Your task to perform on an android device: Open eBay Image 0: 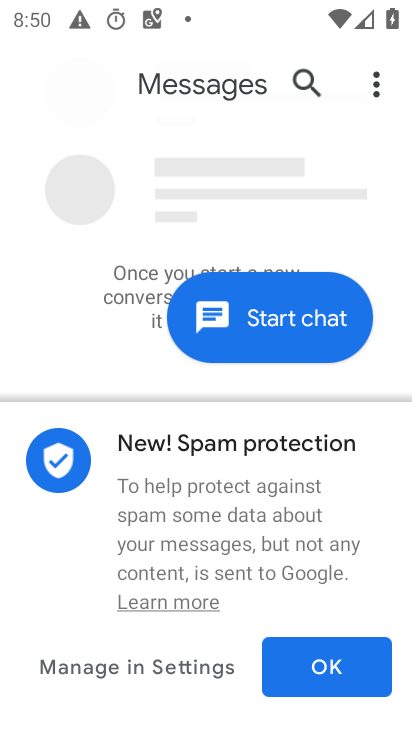
Step 0: press home button
Your task to perform on an android device: Open eBay Image 1: 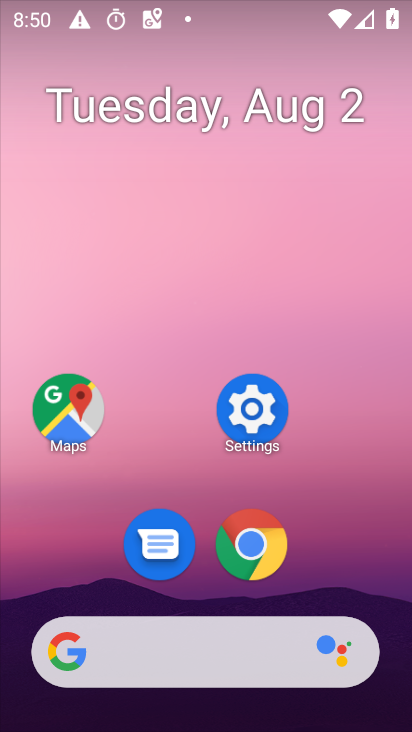
Step 1: click (249, 551)
Your task to perform on an android device: Open eBay Image 2: 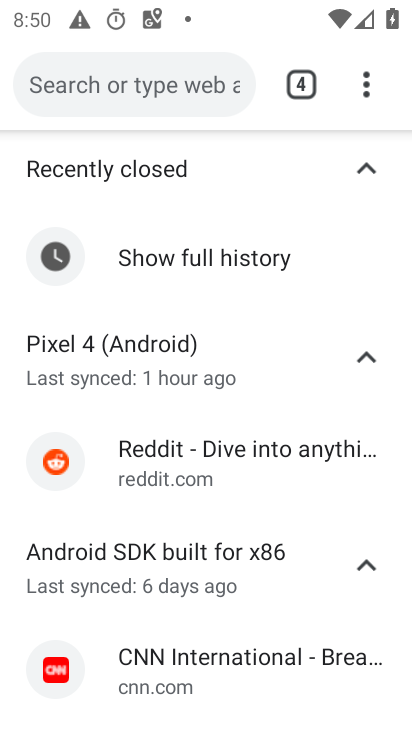
Step 2: drag from (365, 85) to (129, 163)
Your task to perform on an android device: Open eBay Image 3: 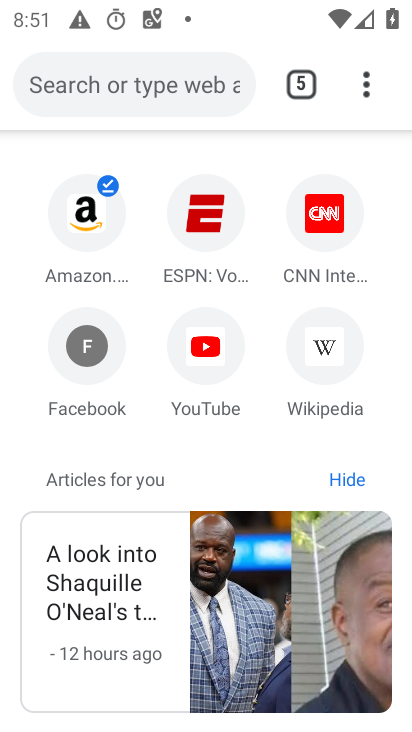
Step 3: click (132, 84)
Your task to perform on an android device: Open eBay Image 4: 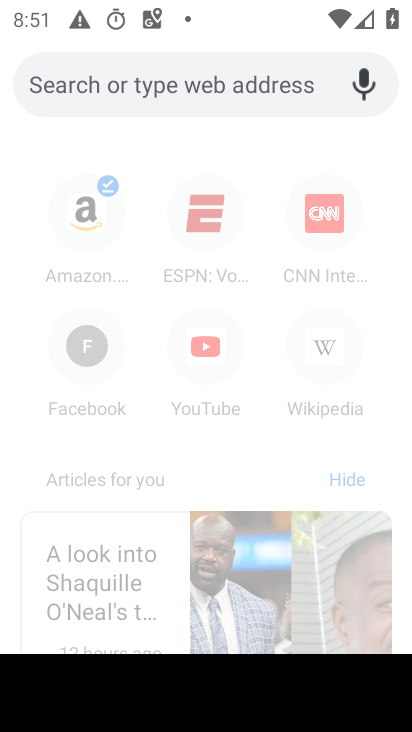
Step 4: type "eBay"
Your task to perform on an android device: Open eBay Image 5: 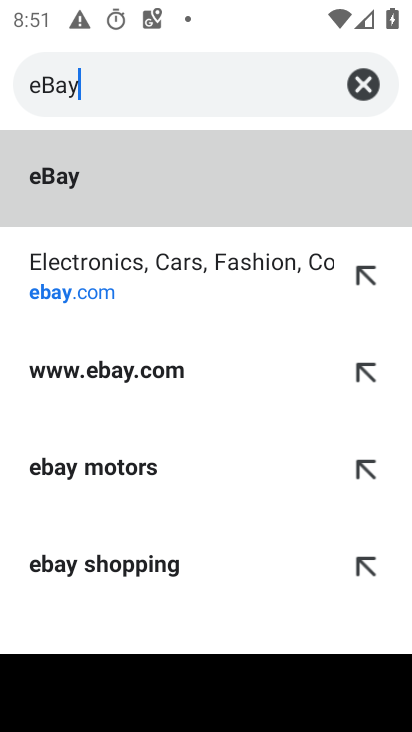
Step 5: click (44, 189)
Your task to perform on an android device: Open eBay Image 6: 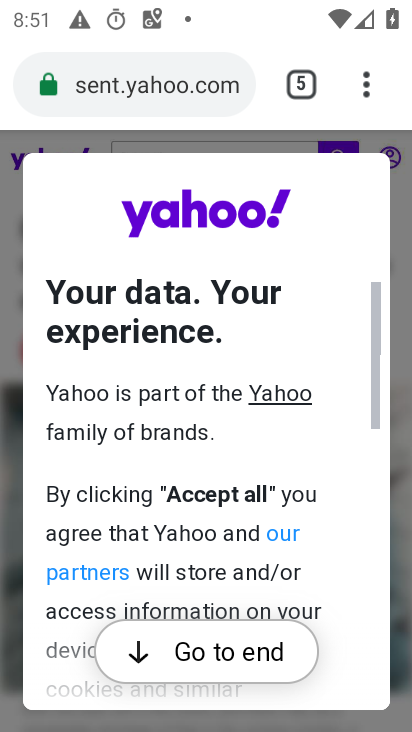
Step 6: click (189, 658)
Your task to perform on an android device: Open eBay Image 7: 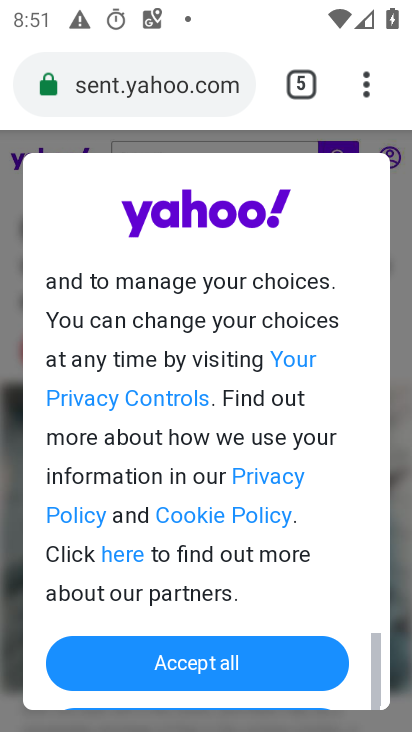
Step 7: click (193, 667)
Your task to perform on an android device: Open eBay Image 8: 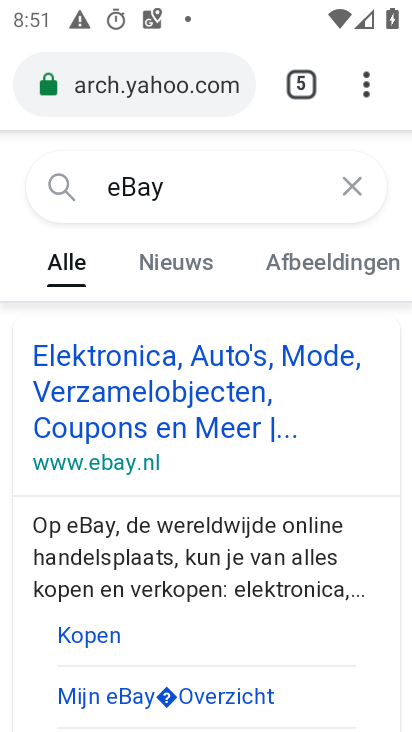
Step 8: drag from (181, 590) to (267, 371)
Your task to perform on an android device: Open eBay Image 9: 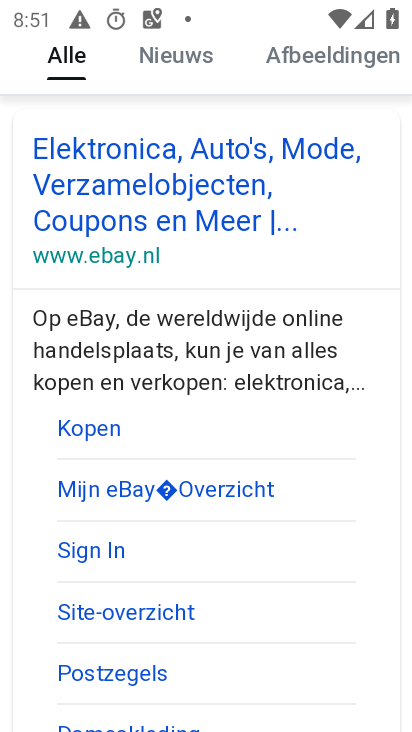
Step 9: drag from (267, 372) to (210, 584)
Your task to perform on an android device: Open eBay Image 10: 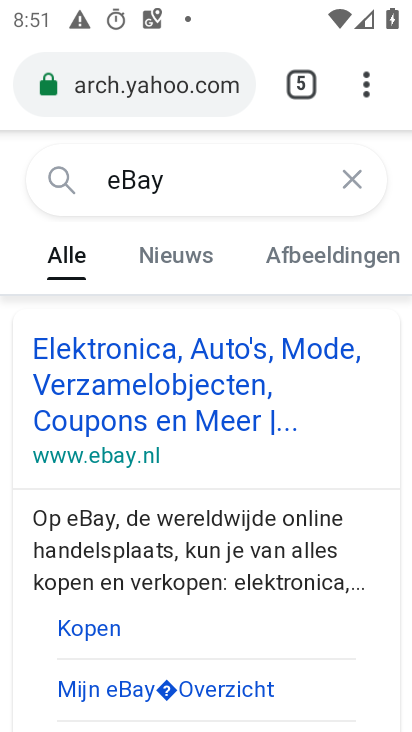
Step 10: click (164, 384)
Your task to perform on an android device: Open eBay Image 11: 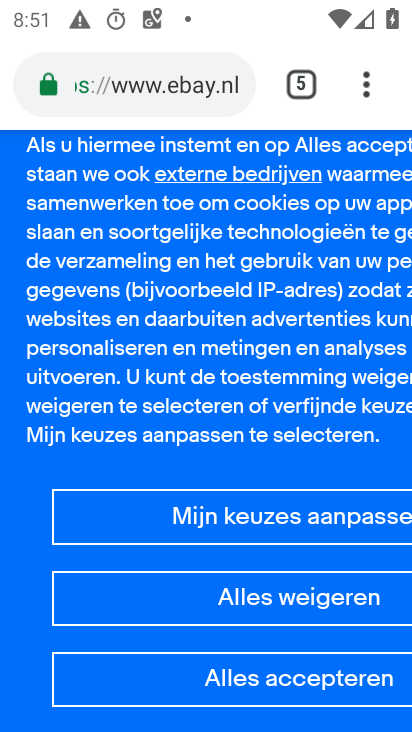
Step 11: click (319, 678)
Your task to perform on an android device: Open eBay Image 12: 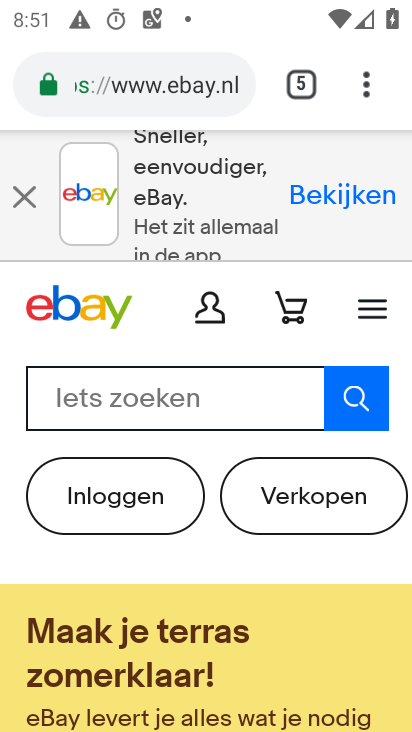
Step 12: click (27, 195)
Your task to perform on an android device: Open eBay Image 13: 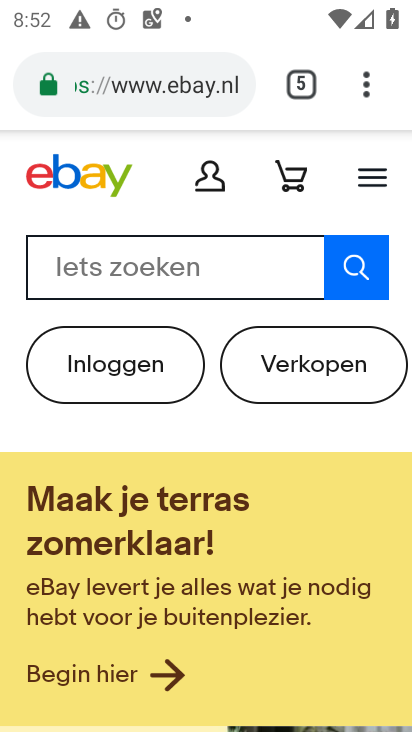
Step 13: task complete